Your task to perform on an android device: Go to eBay Image 0: 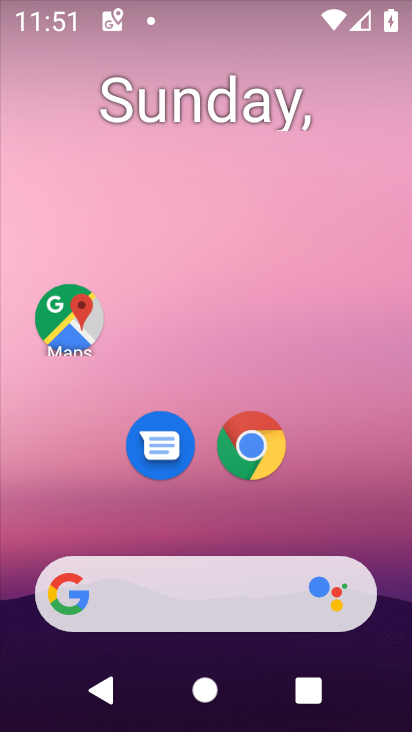
Step 0: click (263, 460)
Your task to perform on an android device: Go to eBay Image 1: 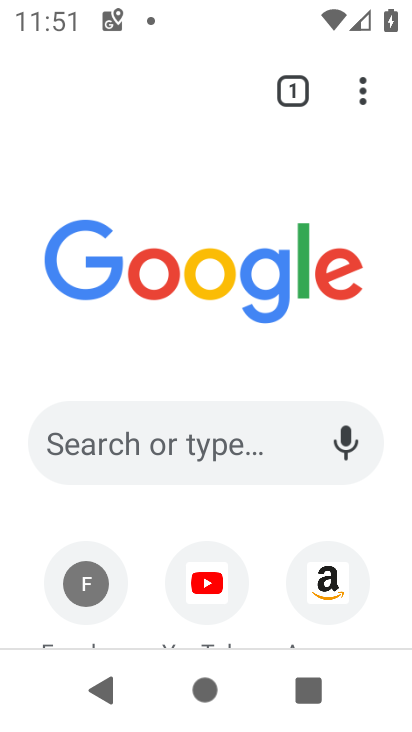
Step 1: drag from (260, 587) to (236, 232)
Your task to perform on an android device: Go to eBay Image 2: 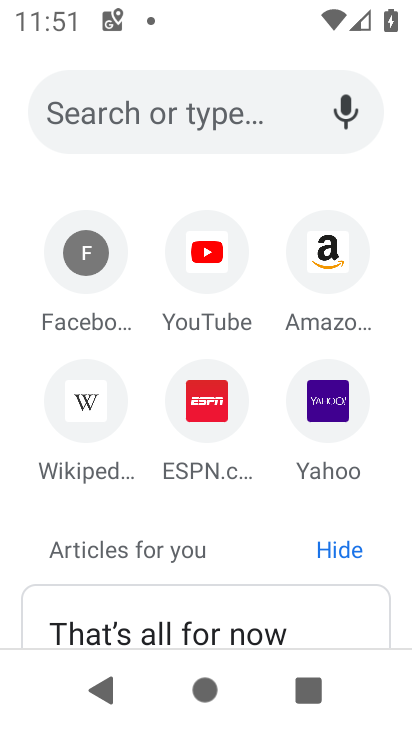
Step 2: click (187, 103)
Your task to perform on an android device: Go to eBay Image 3: 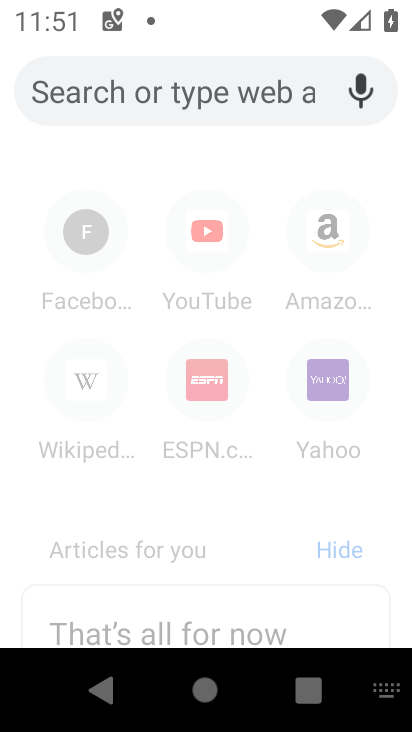
Step 3: type "ebay"
Your task to perform on an android device: Go to eBay Image 4: 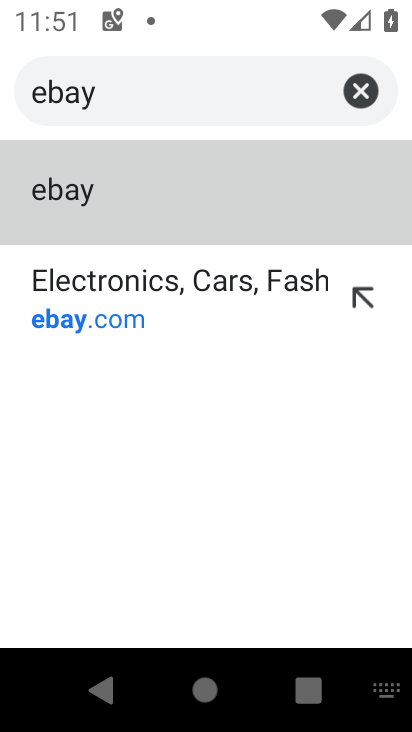
Step 4: click (41, 316)
Your task to perform on an android device: Go to eBay Image 5: 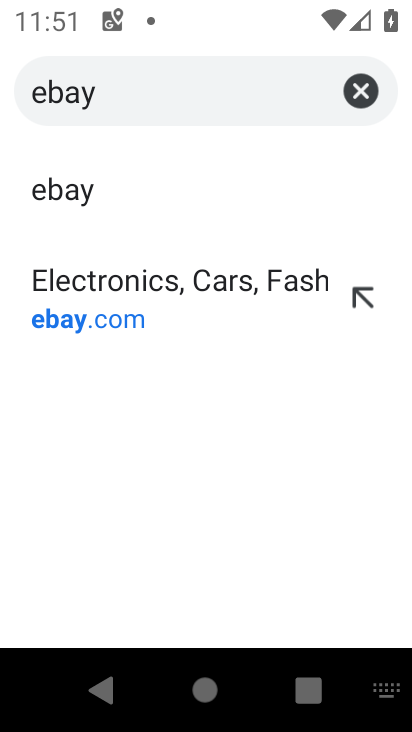
Step 5: click (39, 317)
Your task to perform on an android device: Go to eBay Image 6: 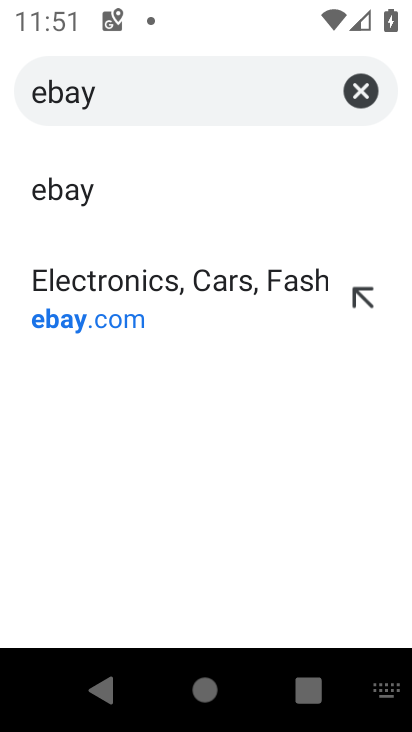
Step 6: click (39, 311)
Your task to perform on an android device: Go to eBay Image 7: 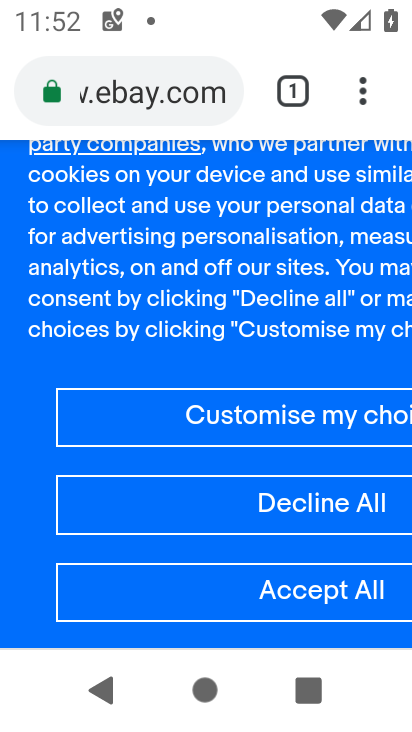
Step 7: task complete